Your task to perform on an android device: set the stopwatch Image 0: 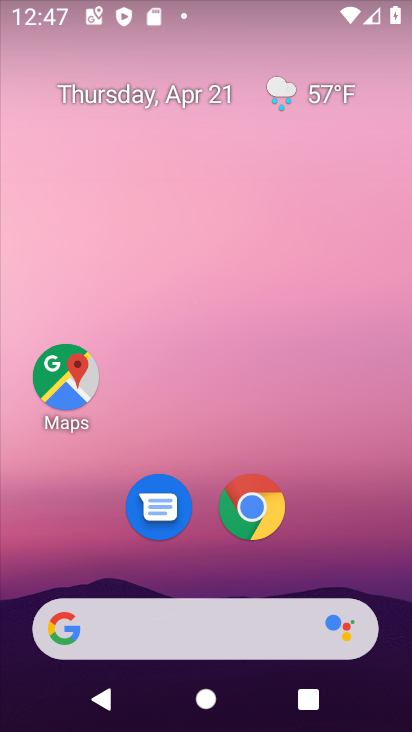
Step 0: click (243, 286)
Your task to perform on an android device: set the stopwatch Image 1: 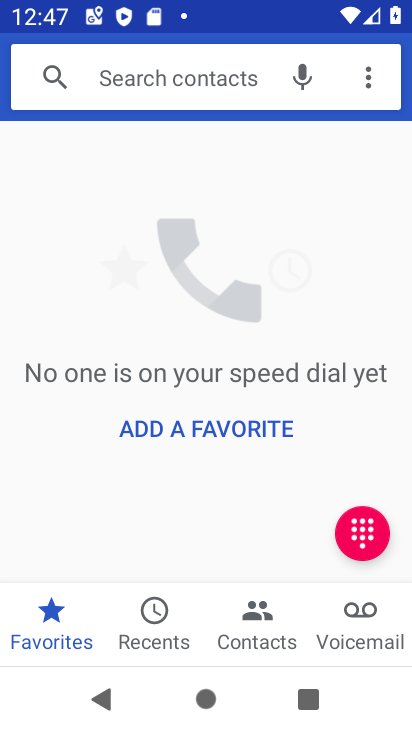
Step 1: press home button
Your task to perform on an android device: set the stopwatch Image 2: 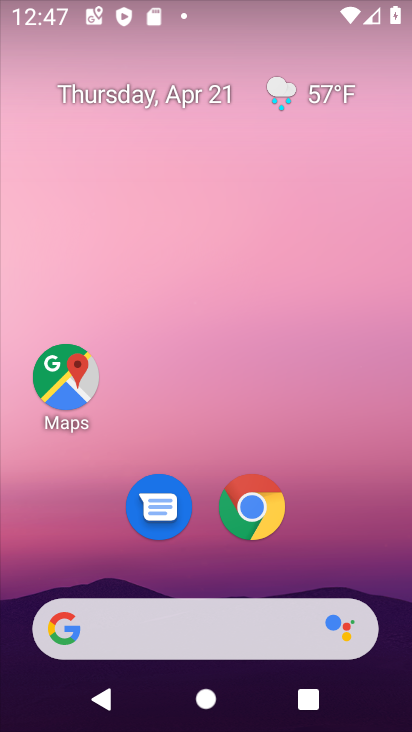
Step 2: drag from (208, 573) to (237, 234)
Your task to perform on an android device: set the stopwatch Image 3: 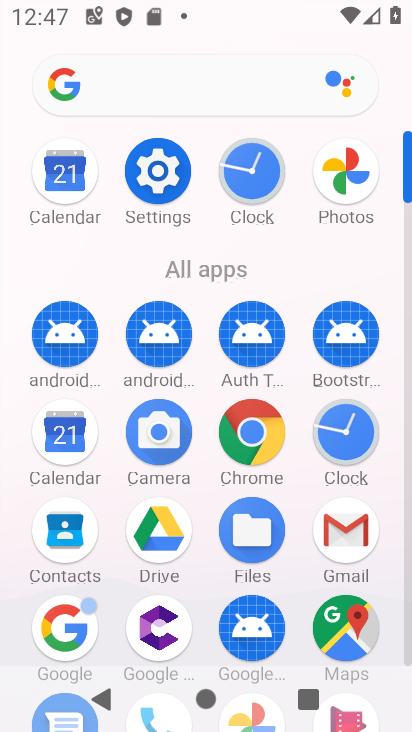
Step 3: click (349, 432)
Your task to perform on an android device: set the stopwatch Image 4: 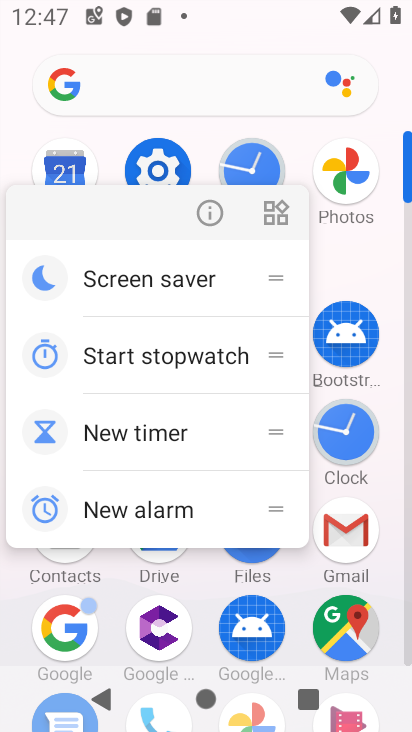
Step 4: click (138, 354)
Your task to perform on an android device: set the stopwatch Image 5: 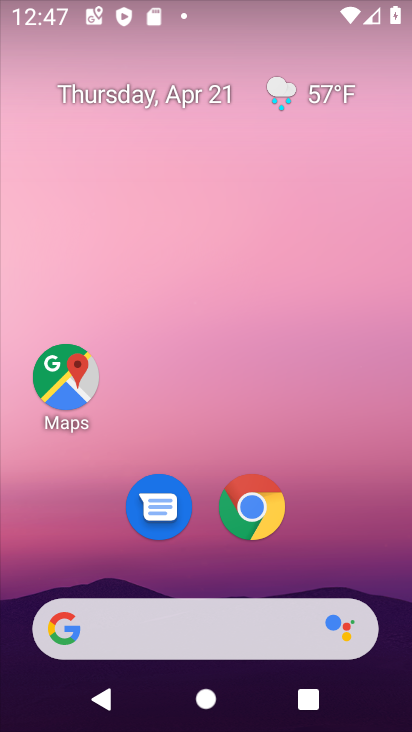
Step 5: drag from (209, 468) to (244, 198)
Your task to perform on an android device: set the stopwatch Image 6: 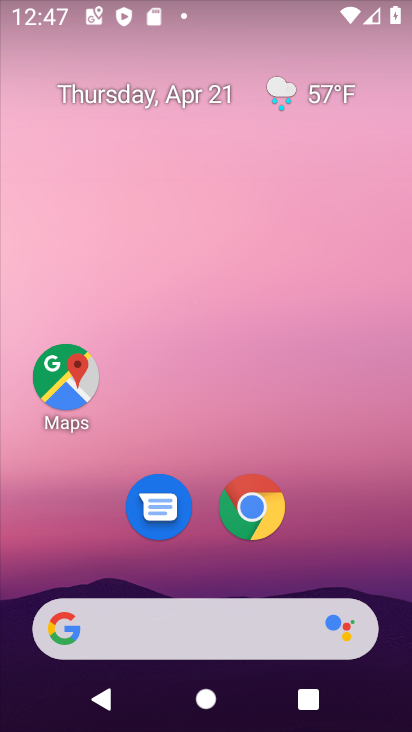
Step 6: drag from (210, 558) to (253, 65)
Your task to perform on an android device: set the stopwatch Image 7: 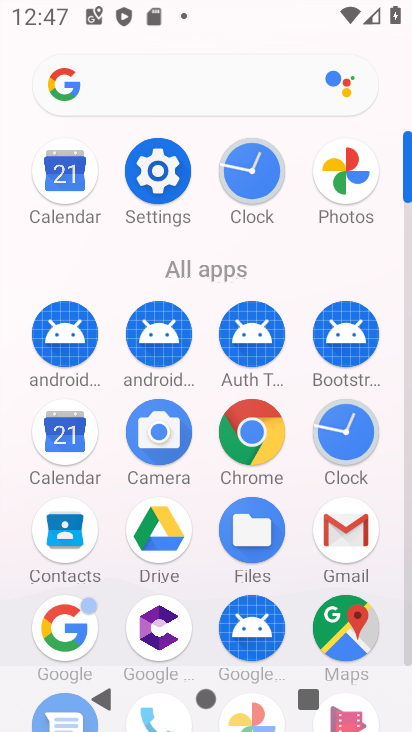
Step 7: click (340, 433)
Your task to perform on an android device: set the stopwatch Image 8: 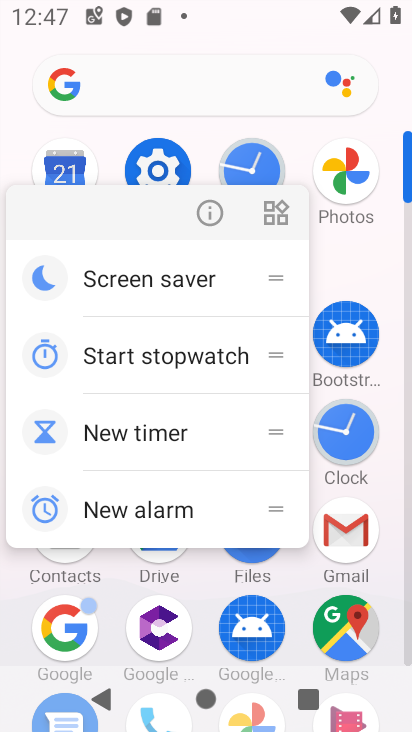
Step 8: click (210, 211)
Your task to perform on an android device: set the stopwatch Image 9: 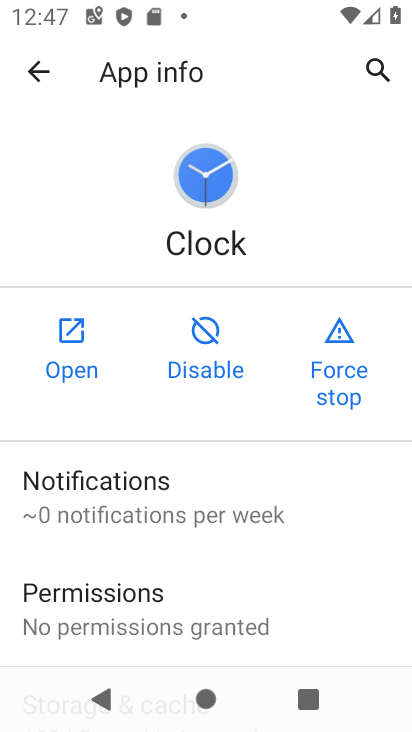
Step 9: click (75, 355)
Your task to perform on an android device: set the stopwatch Image 10: 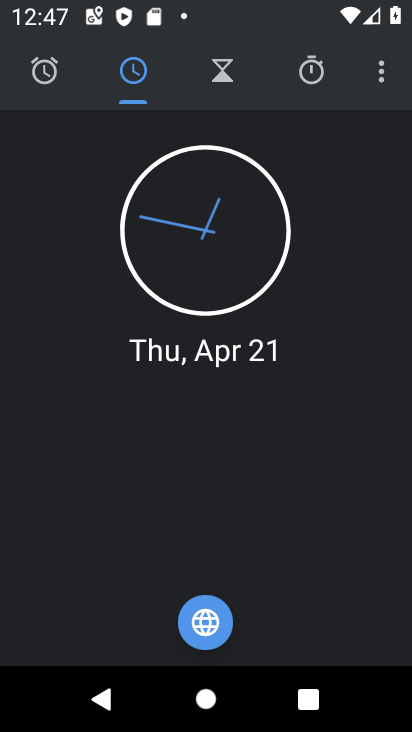
Step 10: click (359, 75)
Your task to perform on an android device: set the stopwatch Image 11: 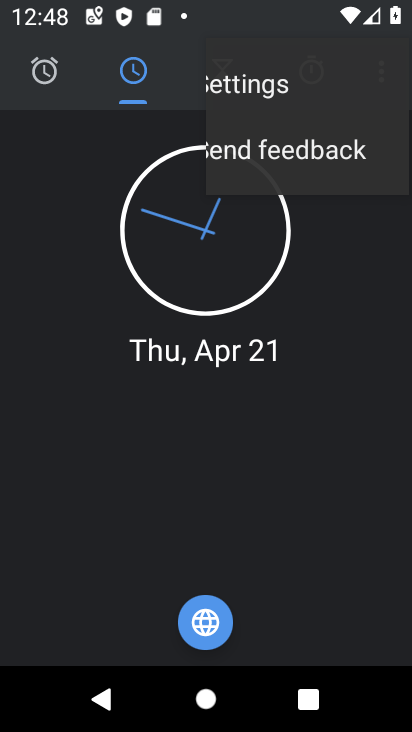
Step 11: click (327, 74)
Your task to perform on an android device: set the stopwatch Image 12: 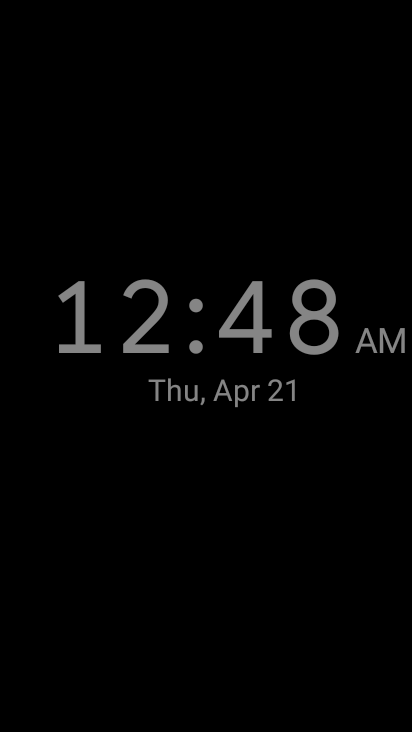
Step 12: click (220, 329)
Your task to perform on an android device: set the stopwatch Image 13: 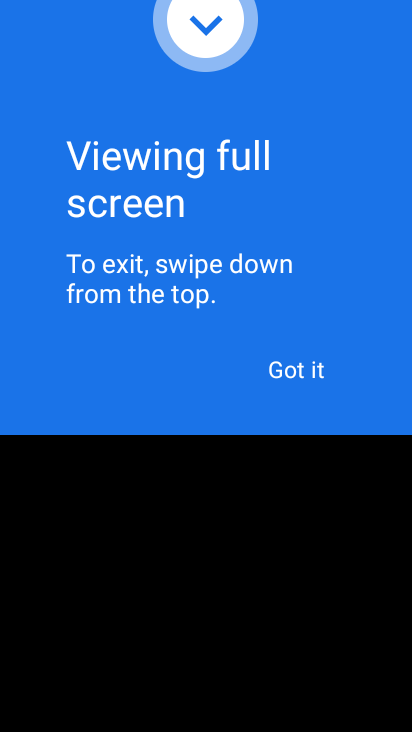
Step 13: drag from (219, 456) to (307, 130)
Your task to perform on an android device: set the stopwatch Image 14: 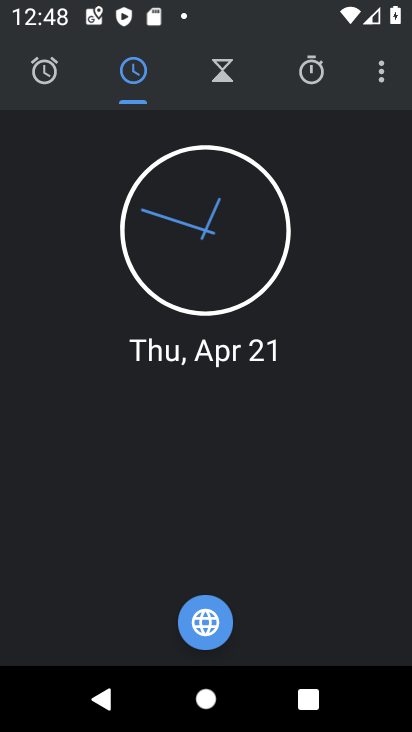
Step 14: drag from (259, 368) to (320, 87)
Your task to perform on an android device: set the stopwatch Image 15: 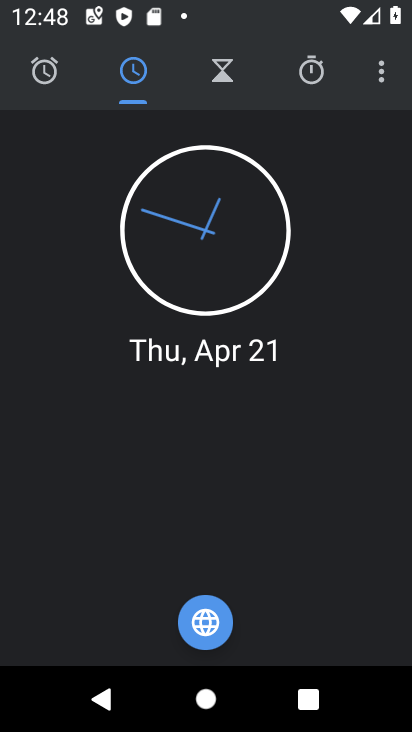
Step 15: click (329, 60)
Your task to perform on an android device: set the stopwatch Image 16: 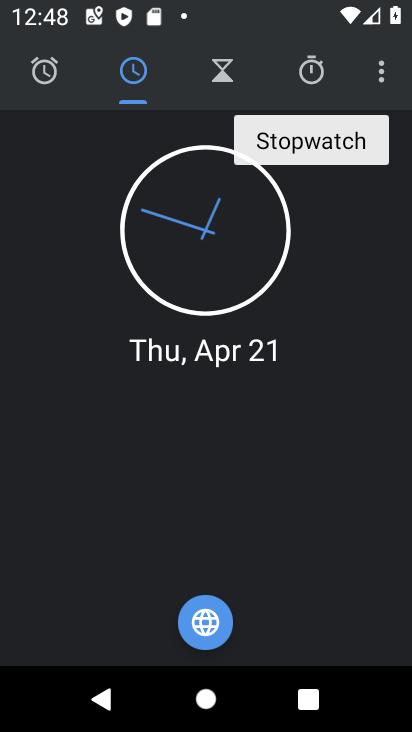
Step 16: click (293, 86)
Your task to perform on an android device: set the stopwatch Image 17: 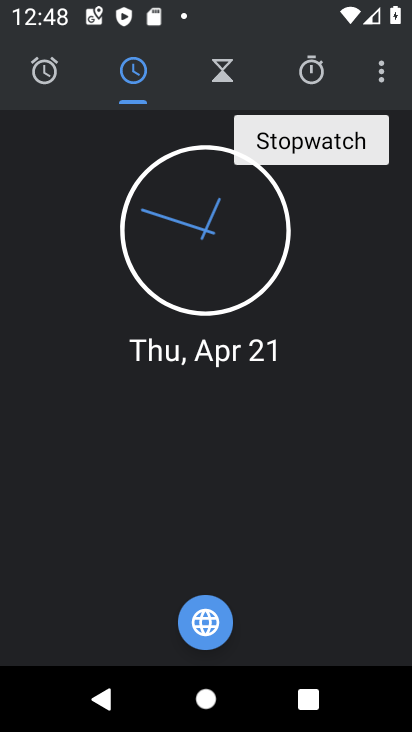
Step 17: click (303, 143)
Your task to perform on an android device: set the stopwatch Image 18: 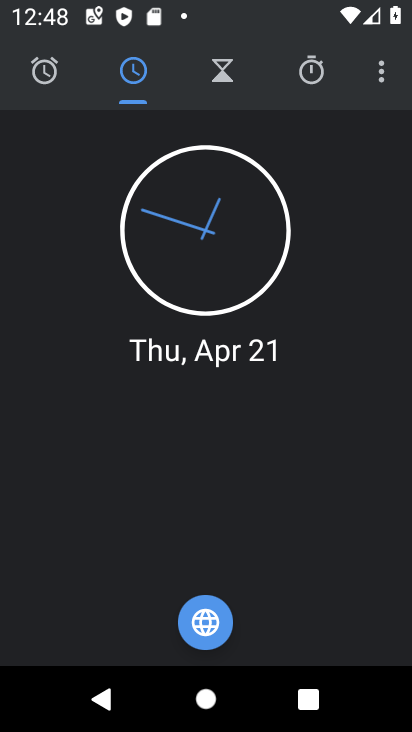
Step 18: click (314, 88)
Your task to perform on an android device: set the stopwatch Image 19: 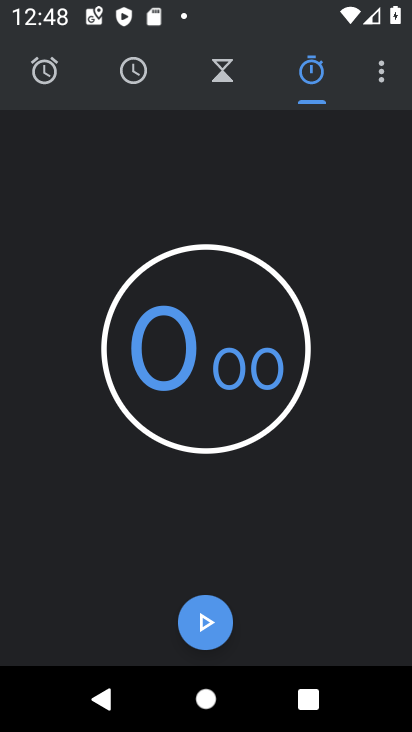
Step 19: click (195, 647)
Your task to perform on an android device: set the stopwatch Image 20: 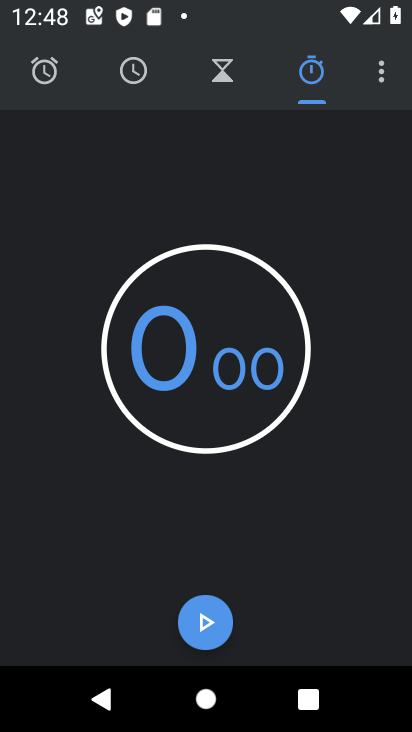
Step 20: task complete